Your task to perform on an android device: manage bookmarks in the chrome app Image 0: 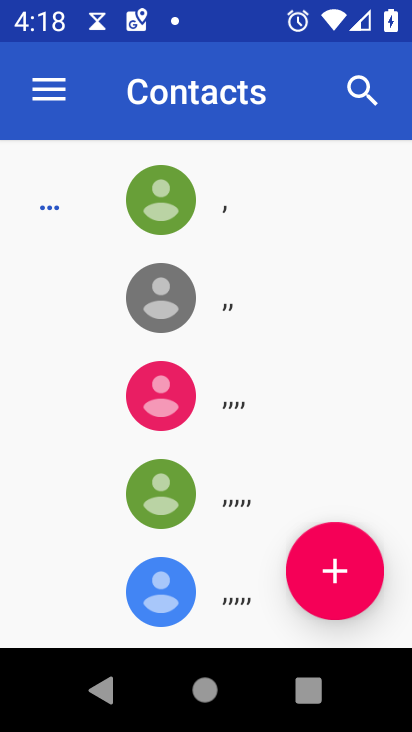
Step 0: press home button
Your task to perform on an android device: manage bookmarks in the chrome app Image 1: 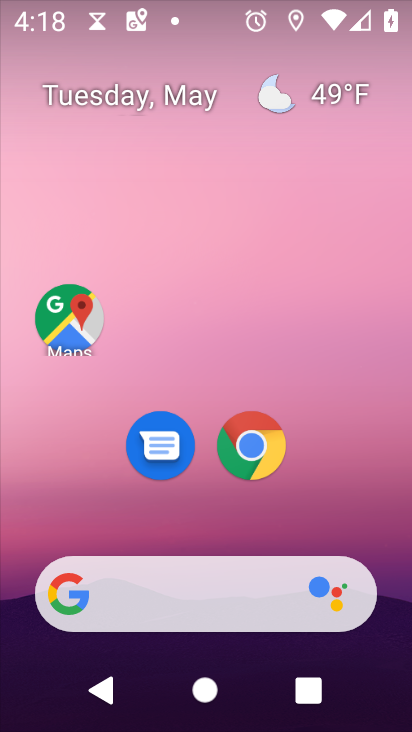
Step 1: drag from (333, 613) to (389, 72)
Your task to perform on an android device: manage bookmarks in the chrome app Image 2: 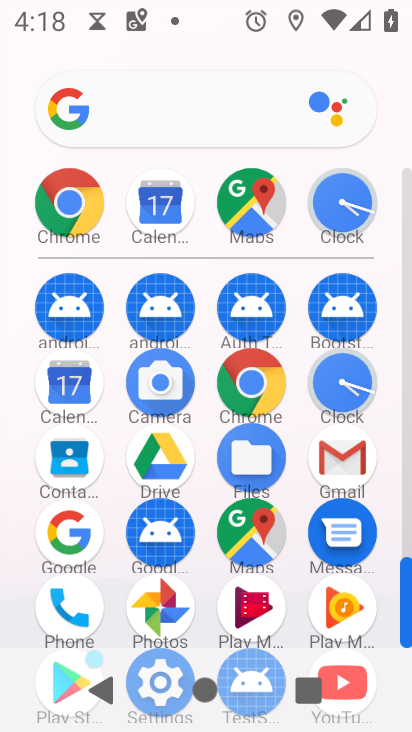
Step 2: click (271, 393)
Your task to perform on an android device: manage bookmarks in the chrome app Image 3: 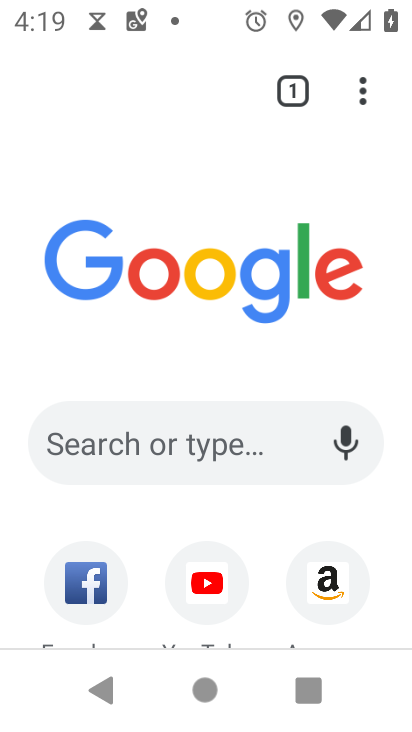
Step 3: click (358, 76)
Your task to perform on an android device: manage bookmarks in the chrome app Image 4: 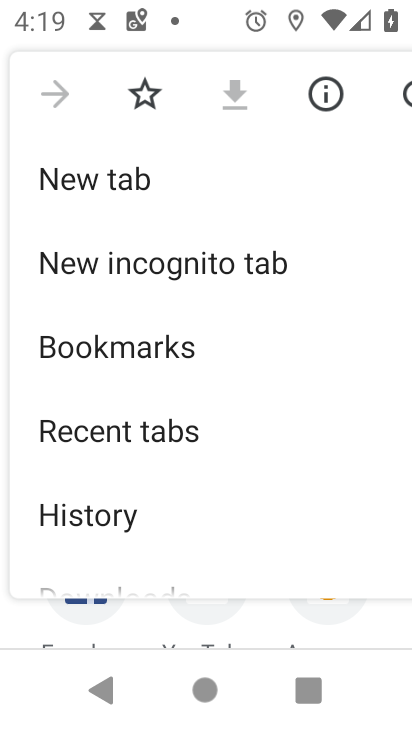
Step 4: click (170, 351)
Your task to perform on an android device: manage bookmarks in the chrome app Image 5: 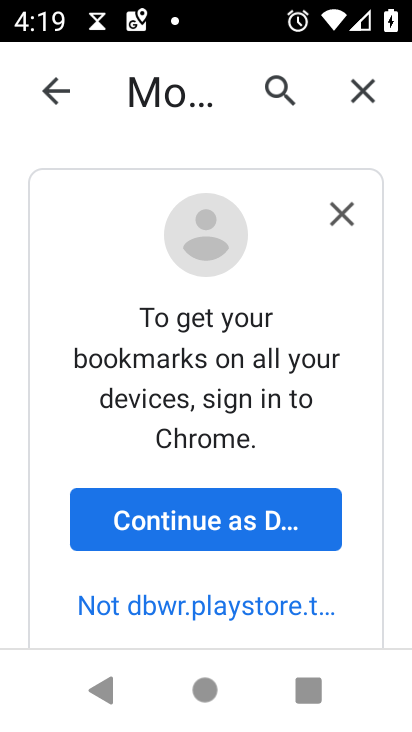
Step 5: task complete